Your task to perform on an android device: set the timer Image 0: 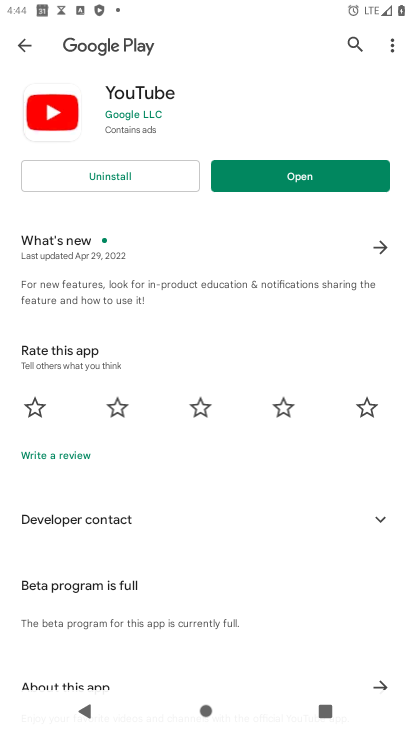
Step 0: press home button
Your task to perform on an android device: set the timer Image 1: 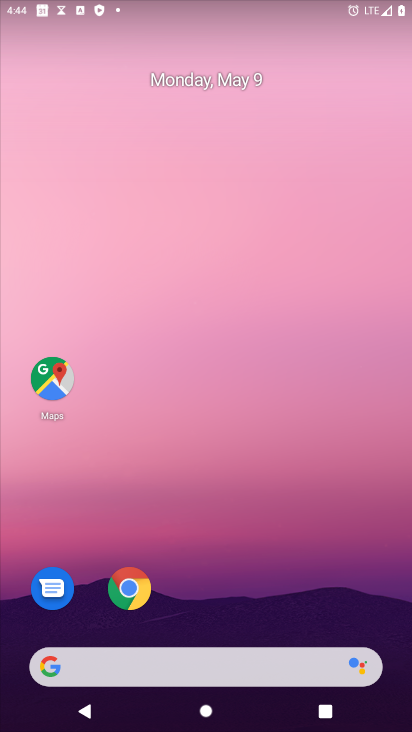
Step 1: drag from (255, 506) to (240, 33)
Your task to perform on an android device: set the timer Image 2: 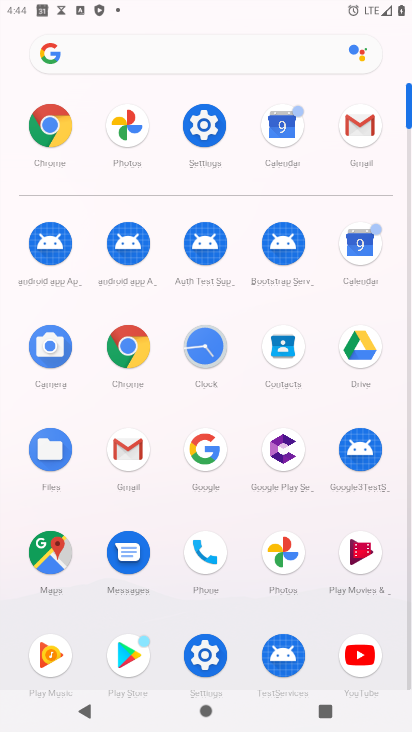
Step 2: click (209, 343)
Your task to perform on an android device: set the timer Image 3: 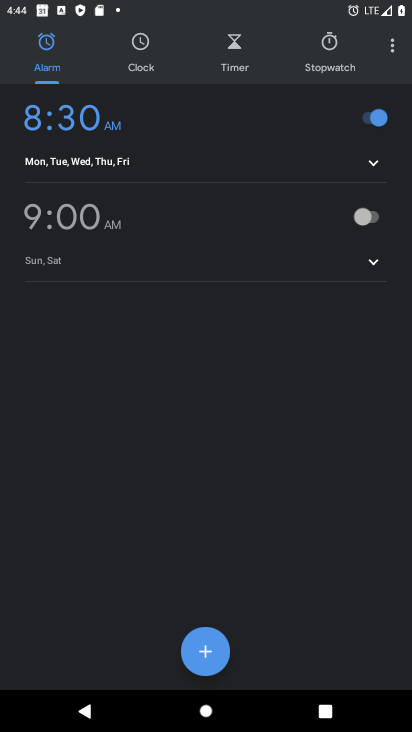
Step 3: click (226, 58)
Your task to perform on an android device: set the timer Image 4: 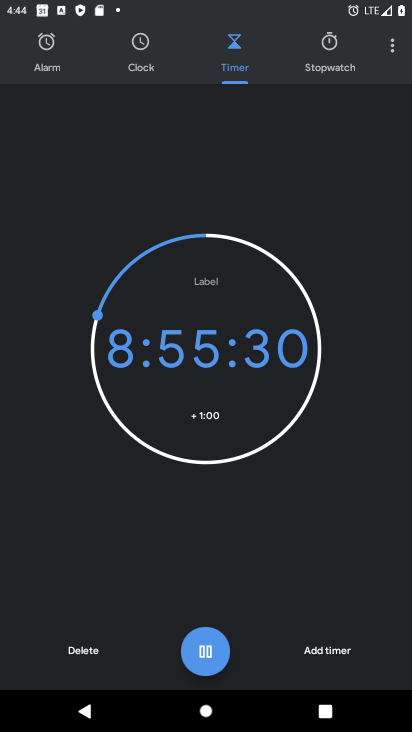
Step 4: task complete